Your task to perform on an android device: visit the assistant section in the google photos Image 0: 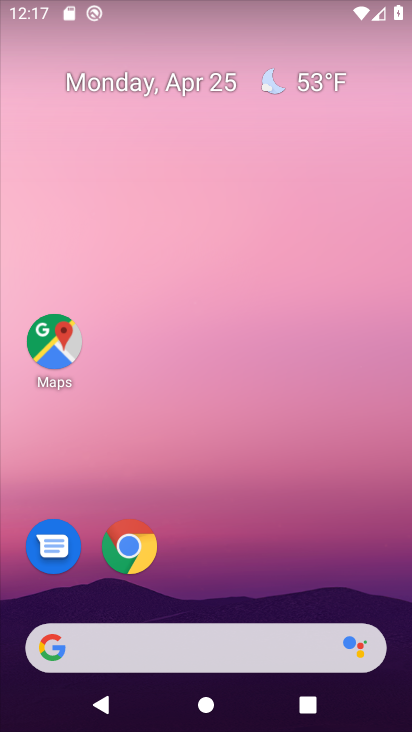
Step 0: drag from (171, 141) to (160, 101)
Your task to perform on an android device: visit the assistant section in the google photos Image 1: 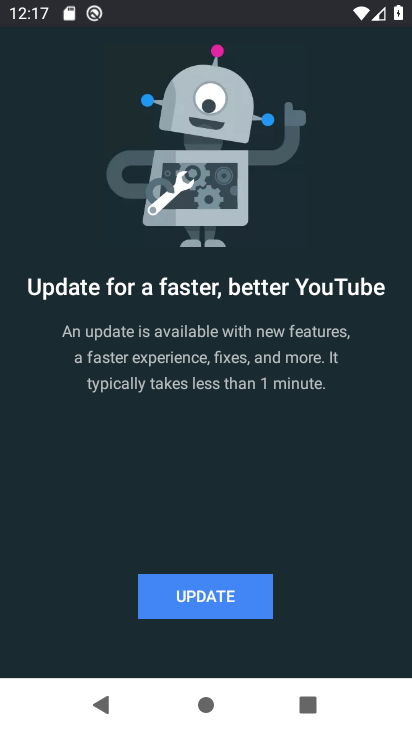
Step 1: press home button
Your task to perform on an android device: visit the assistant section in the google photos Image 2: 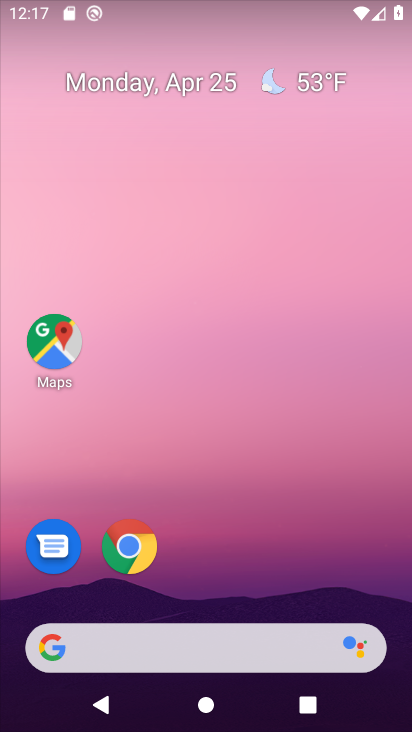
Step 2: drag from (250, 513) to (208, 208)
Your task to perform on an android device: visit the assistant section in the google photos Image 3: 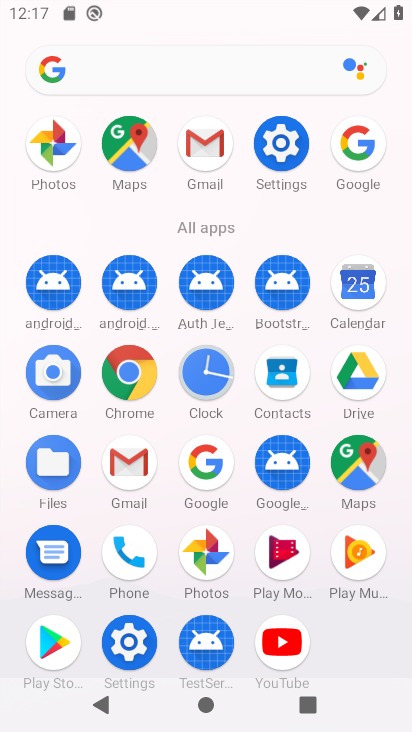
Step 3: click (208, 558)
Your task to perform on an android device: visit the assistant section in the google photos Image 4: 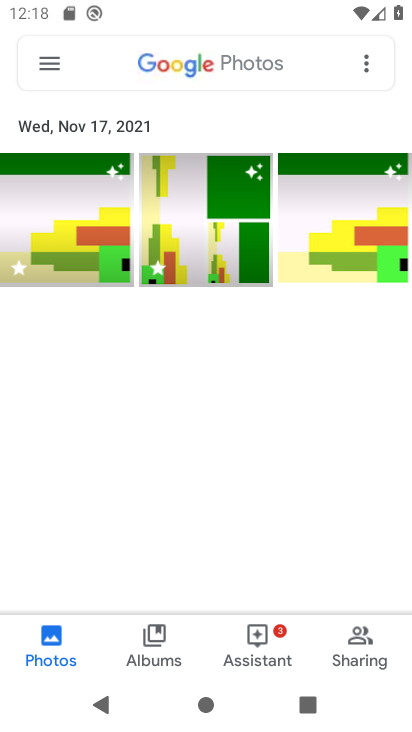
Step 4: click (269, 639)
Your task to perform on an android device: visit the assistant section in the google photos Image 5: 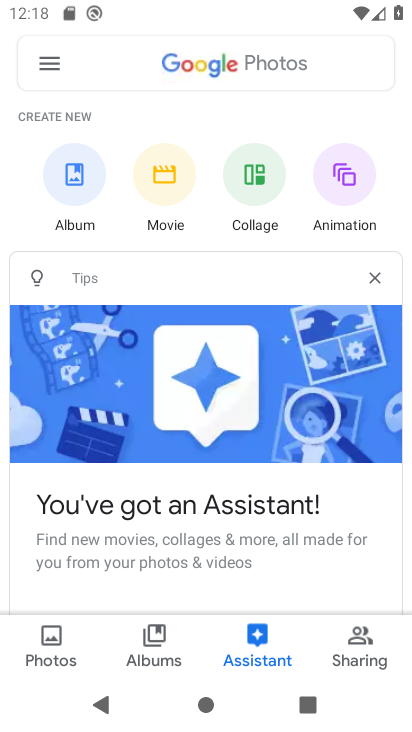
Step 5: task complete